Your task to perform on an android device: Open Youtube and go to the subscriptions tab Image 0: 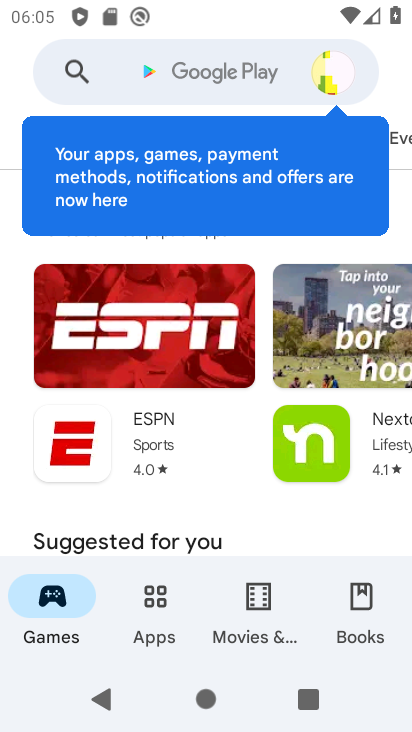
Step 0: press home button
Your task to perform on an android device: Open Youtube and go to the subscriptions tab Image 1: 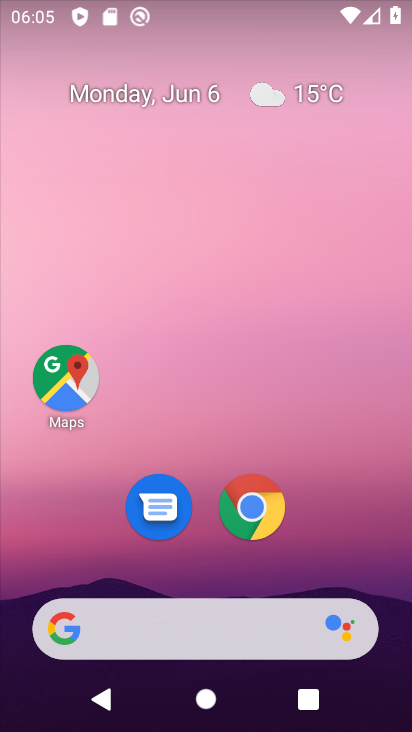
Step 1: drag from (216, 572) to (348, 6)
Your task to perform on an android device: Open Youtube and go to the subscriptions tab Image 2: 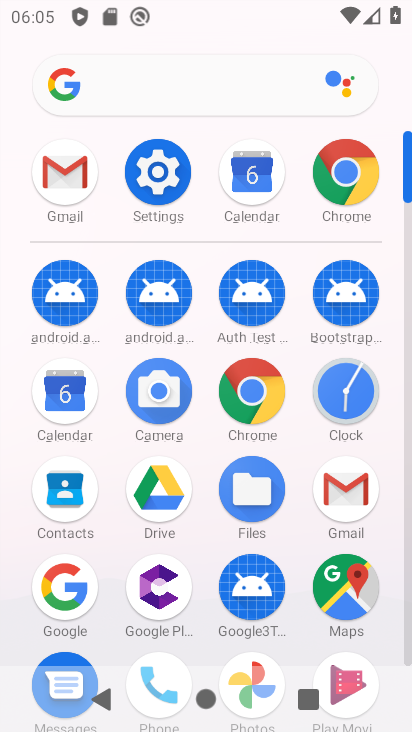
Step 2: drag from (255, 623) to (219, 248)
Your task to perform on an android device: Open Youtube and go to the subscriptions tab Image 3: 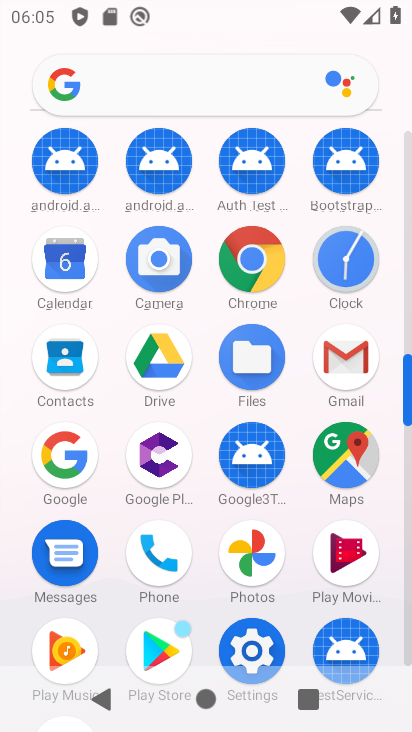
Step 3: click (346, 581)
Your task to perform on an android device: Open Youtube and go to the subscriptions tab Image 4: 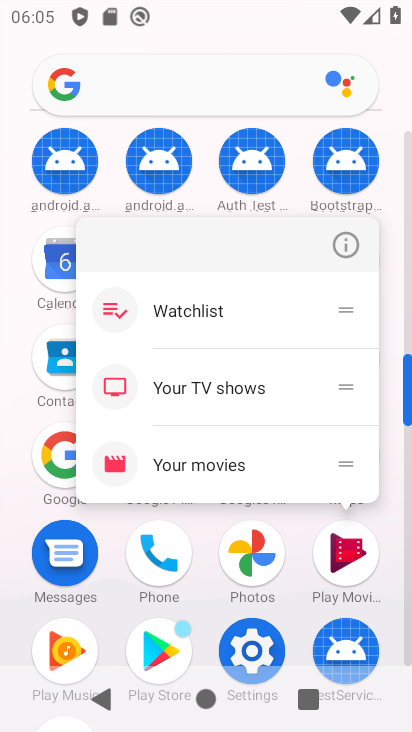
Step 4: press back button
Your task to perform on an android device: Open Youtube and go to the subscriptions tab Image 5: 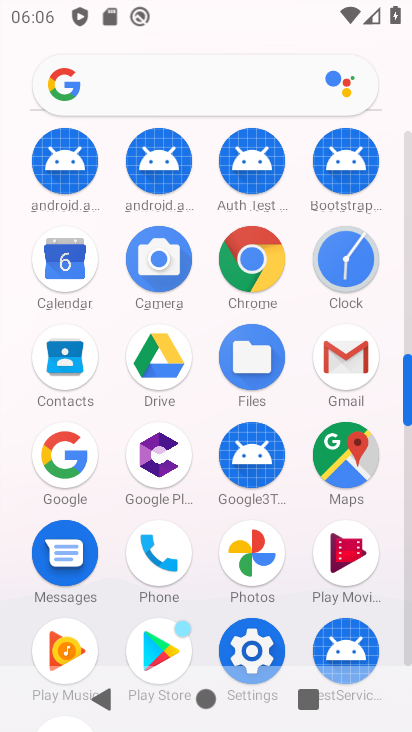
Step 5: drag from (269, 560) to (248, 242)
Your task to perform on an android device: Open Youtube and go to the subscriptions tab Image 6: 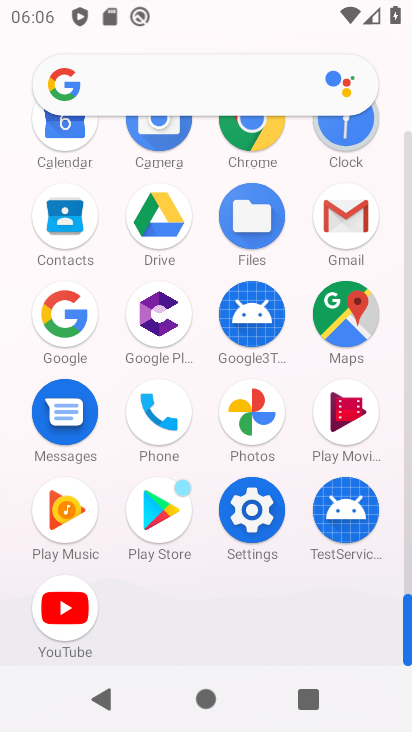
Step 6: click (54, 605)
Your task to perform on an android device: Open Youtube and go to the subscriptions tab Image 7: 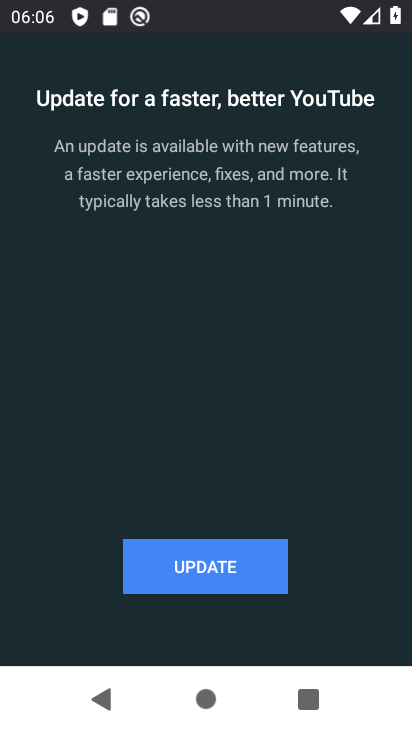
Step 7: click (206, 563)
Your task to perform on an android device: Open Youtube and go to the subscriptions tab Image 8: 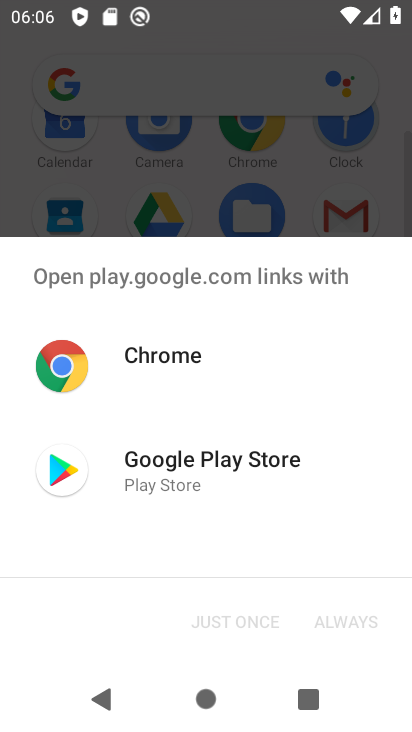
Step 8: click (175, 479)
Your task to perform on an android device: Open Youtube and go to the subscriptions tab Image 9: 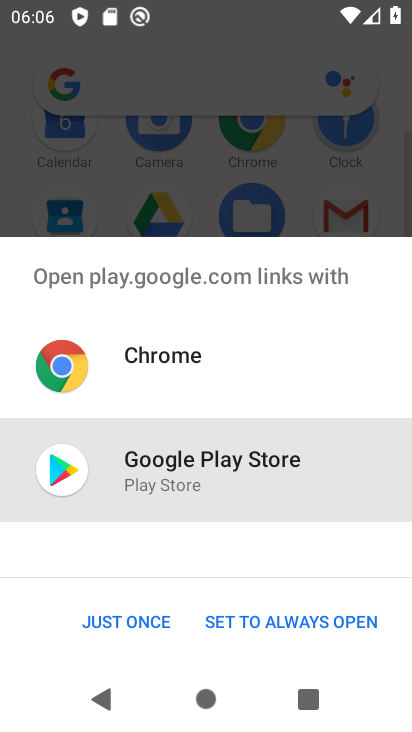
Step 9: click (334, 617)
Your task to perform on an android device: Open Youtube and go to the subscriptions tab Image 10: 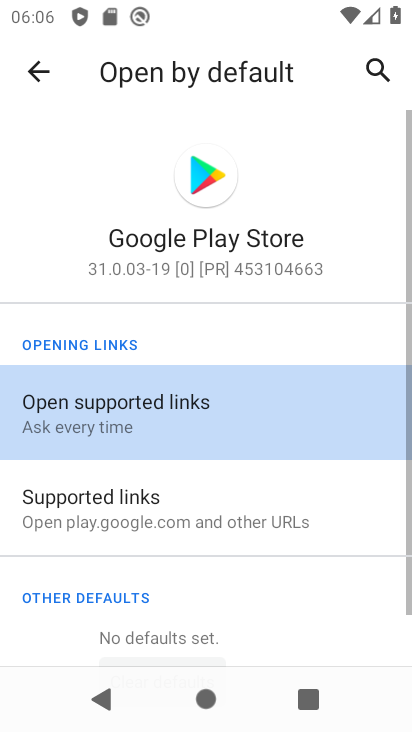
Step 10: click (102, 442)
Your task to perform on an android device: Open Youtube and go to the subscriptions tab Image 11: 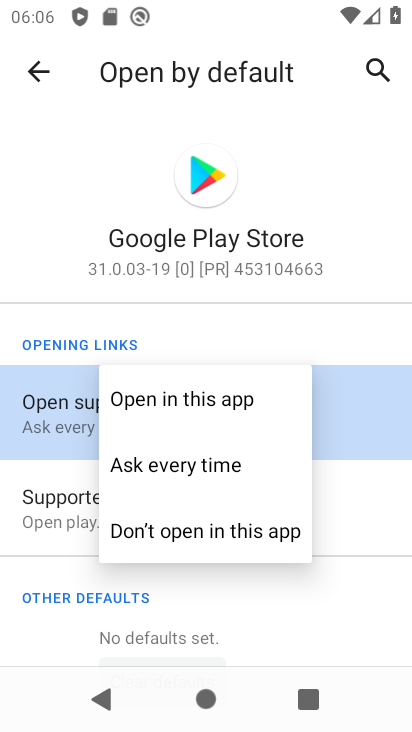
Step 11: click (143, 393)
Your task to perform on an android device: Open Youtube and go to the subscriptions tab Image 12: 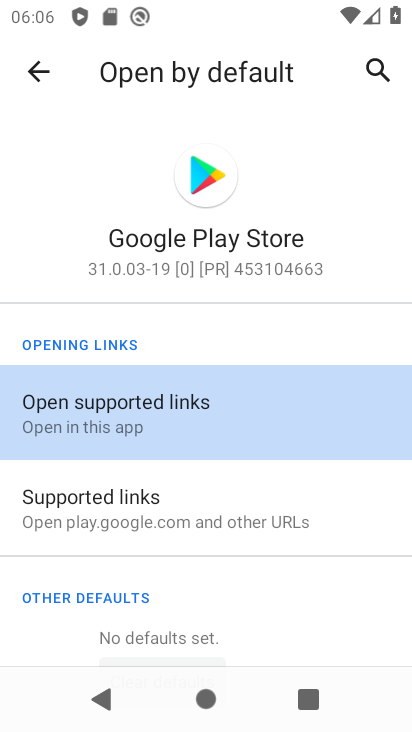
Step 12: click (34, 82)
Your task to perform on an android device: Open Youtube and go to the subscriptions tab Image 13: 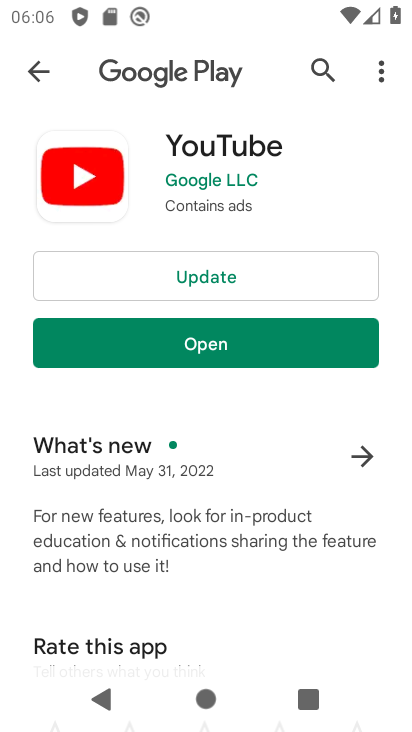
Step 13: click (233, 358)
Your task to perform on an android device: Open Youtube and go to the subscriptions tab Image 14: 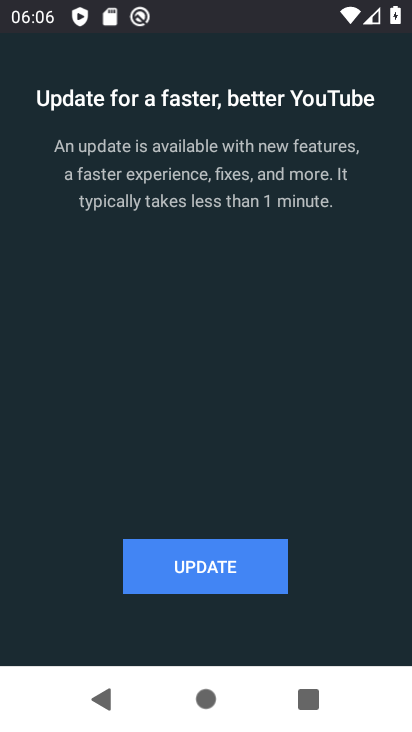
Step 14: click (189, 578)
Your task to perform on an android device: Open Youtube and go to the subscriptions tab Image 15: 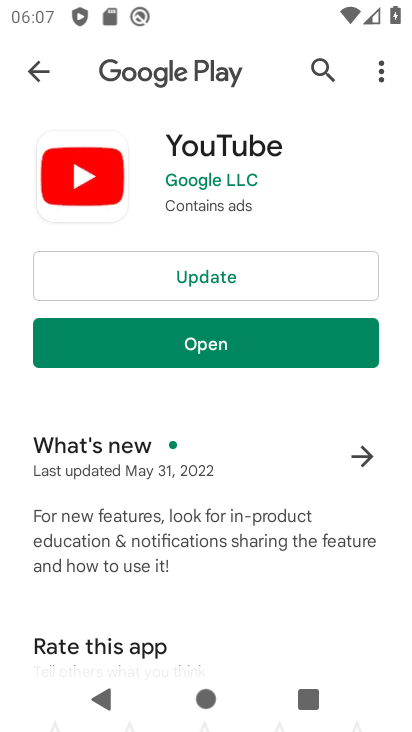
Step 15: click (216, 284)
Your task to perform on an android device: Open Youtube and go to the subscriptions tab Image 16: 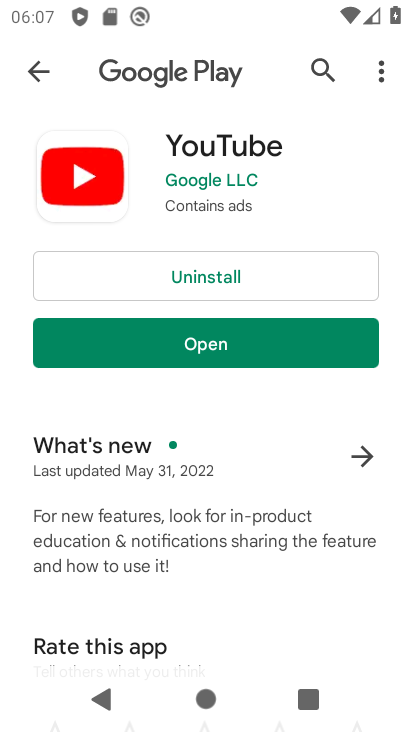
Step 16: click (196, 339)
Your task to perform on an android device: Open Youtube and go to the subscriptions tab Image 17: 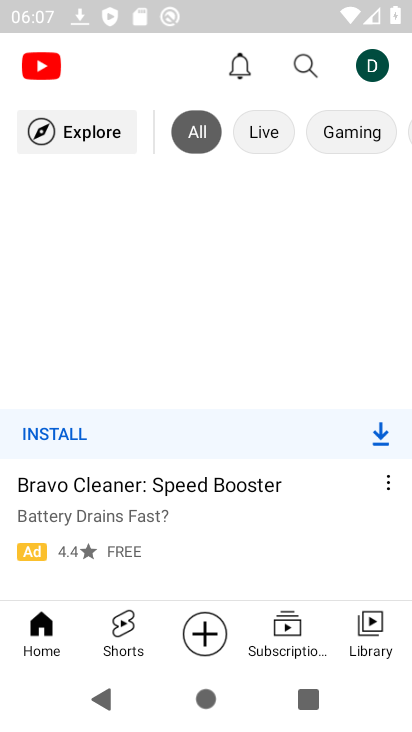
Step 17: click (279, 635)
Your task to perform on an android device: Open Youtube and go to the subscriptions tab Image 18: 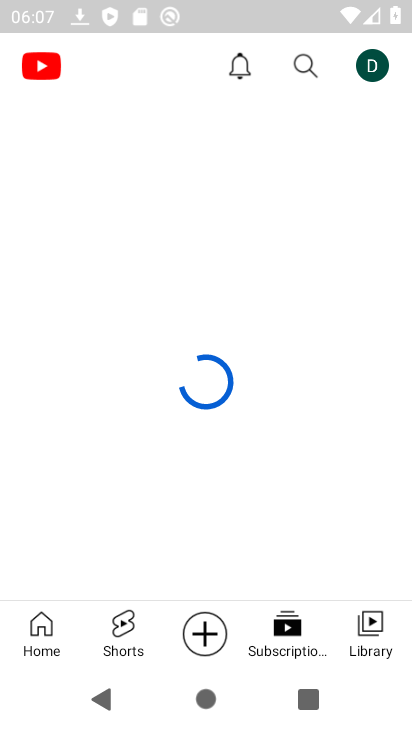
Step 18: task complete